Your task to perform on an android device: turn on notifications settings in the gmail app Image 0: 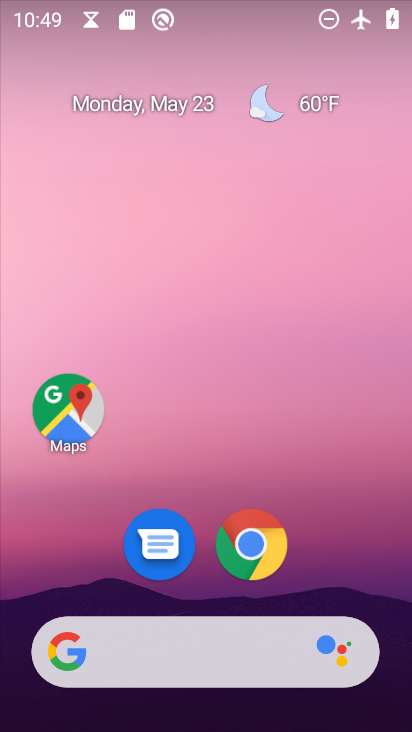
Step 0: drag from (346, 552) to (85, 137)
Your task to perform on an android device: turn on notifications settings in the gmail app Image 1: 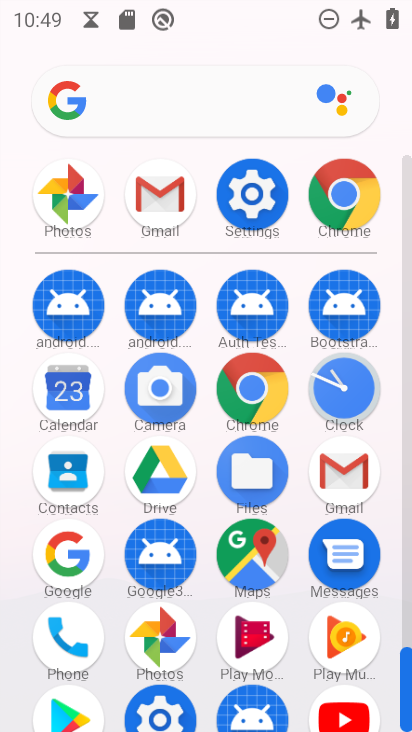
Step 1: click (167, 220)
Your task to perform on an android device: turn on notifications settings in the gmail app Image 2: 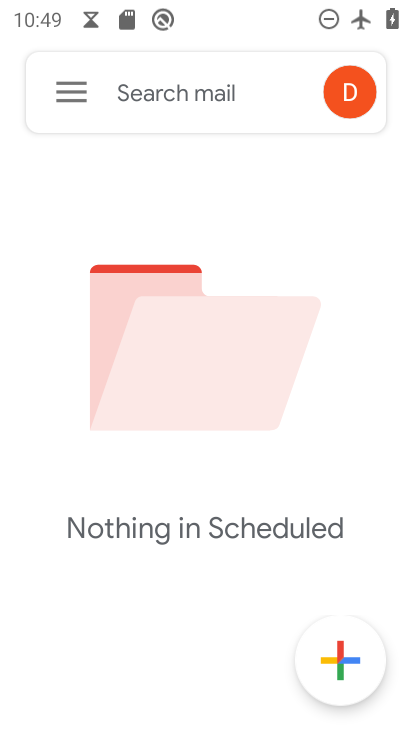
Step 2: click (57, 91)
Your task to perform on an android device: turn on notifications settings in the gmail app Image 3: 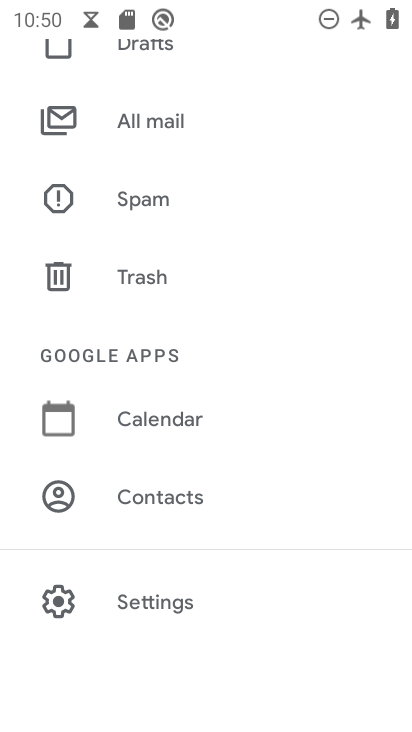
Step 3: click (133, 600)
Your task to perform on an android device: turn on notifications settings in the gmail app Image 4: 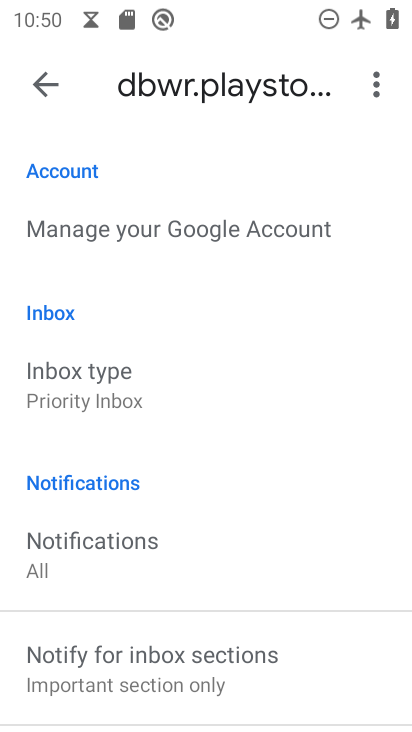
Step 4: drag from (151, 665) to (151, 307)
Your task to perform on an android device: turn on notifications settings in the gmail app Image 5: 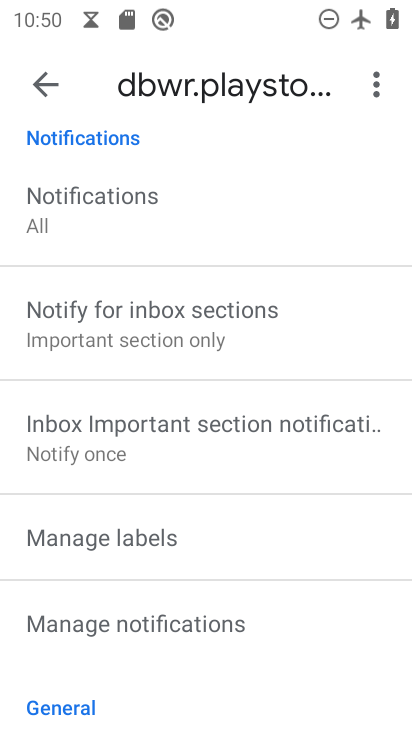
Step 5: click (153, 620)
Your task to perform on an android device: turn on notifications settings in the gmail app Image 6: 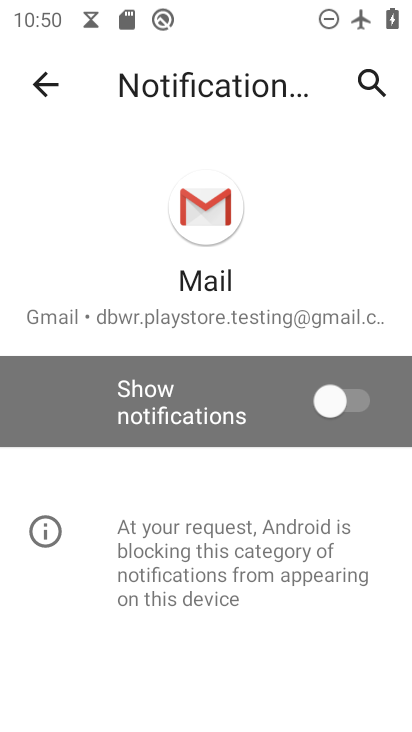
Step 6: click (320, 409)
Your task to perform on an android device: turn on notifications settings in the gmail app Image 7: 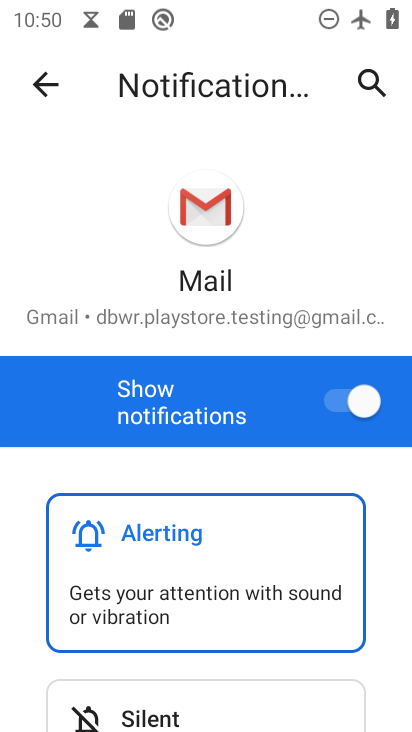
Step 7: task complete